Your task to perform on an android device: Clear all items from cart on newegg. Search for "jbl charge 4" on newegg, select the first entry, and add it to the cart. Image 0: 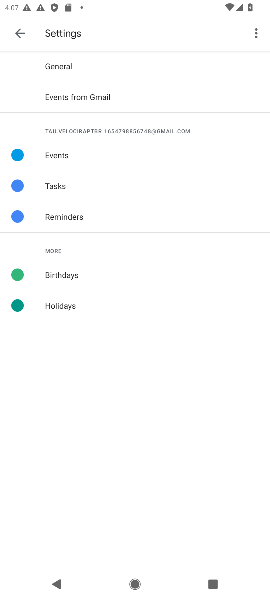
Step 0: press home button
Your task to perform on an android device: Clear all items from cart on newegg. Search for "jbl charge 4" on newegg, select the first entry, and add it to the cart. Image 1: 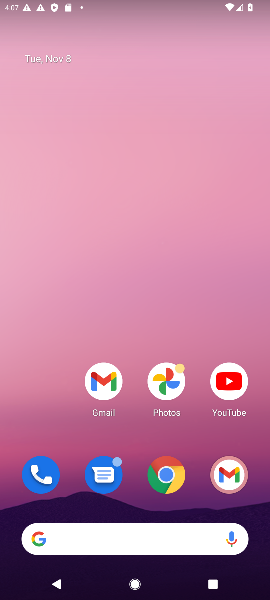
Step 1: drag from (120, 510) to (169, 55)
Your task to perform on an android device: Clear all items from cart on newegg. Search for "jbl charge 4" on newegg, select the first entry, and add it to the cart. Image 2: 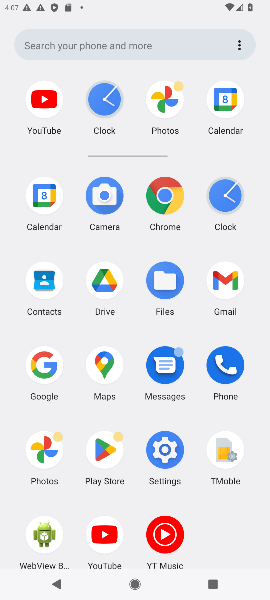
Step 2: click (37, 363)
Your task to perform on an android device: Clear all items from cart on newegg. Search for "jbl charge 4" on newegg, select the first entry, and add it to the cart. Image 3: 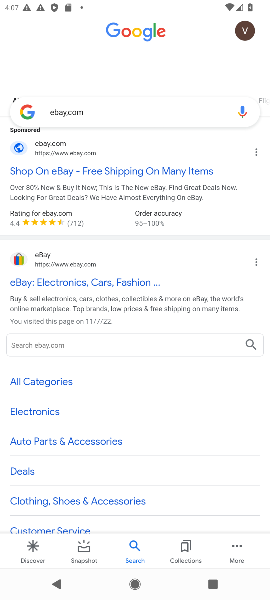
Step 3: click (128, 111)
Your task to perform on an android device: Clear all items from cart on newegg. Search for "jbl charge 4" on newegg, select the first entry, and add it to the cart. Image 4: 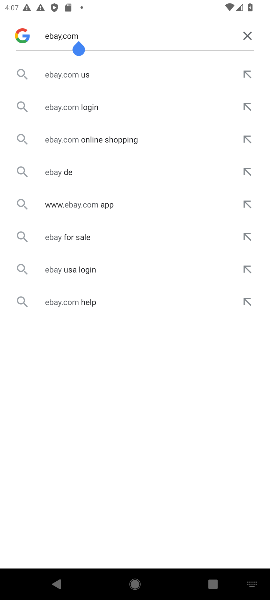
Step 4: click (241, 31)
Your task to perform on an android device: Clear all items from cart on newegg. Search for "jbl charge 4" on newegg, select the first entry, and add it to the cart. Image 5: 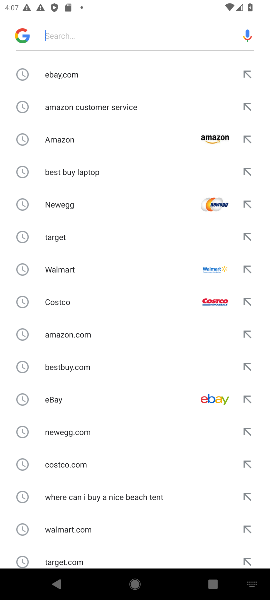
Step 5: click (131, 34)
Your task to perform on an android device: Clear all items from cart on newegg. Search for "jbl charge 4" on newegg, select the first entry, and add it to the cart. Image 6: 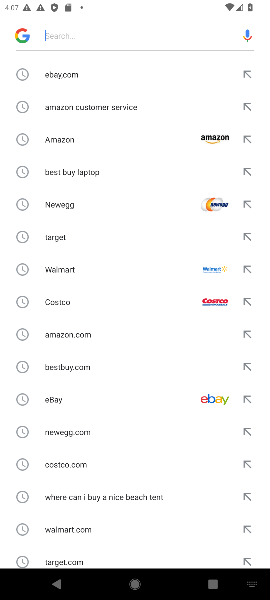
Step 6: type "newegg "
Your task to perform on an android device: Clear all items from cart on newegg. Search for "jbl charge 4" on newegg, select the first entry, and add it to the cart. Image 7: 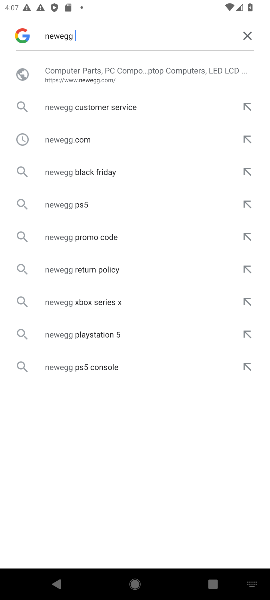
Step 7: click (82, 136)
Your task to perform on an android device: Clear all items from cart on newegg. Search for "jbl charge 4" on newegg, select the first entry, and add it to the cart. Image 8: 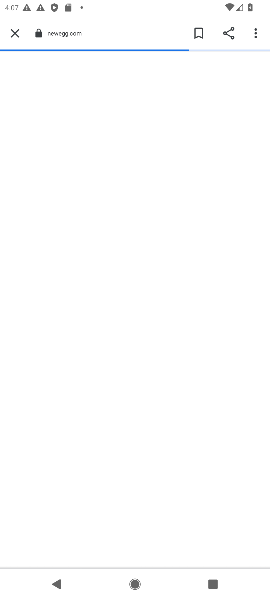
Step 8: click (82, 136)
Your task to perform on an android device: Clear all items from cart on newegg. Search for "jbl charge 4" on newegg, select the first entry, and add it to the cart. Image 9: 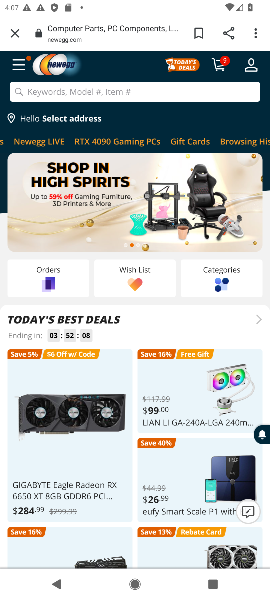
Step 9: click (167, 90)
Your task to perform on an android device: Clear all items from cart on newegg. Search for "jbl charge 4" on newegg, select the first entry, and add it to the cart. Image 10: 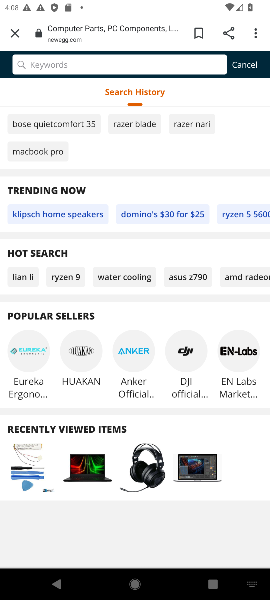
Step 10: click (66, 61)
Your task to perform on an android device: Clear all items from cart on newegg. Search for "jbl charge 4" on newegg, select the first entry, and add it to the cart. Image 11: 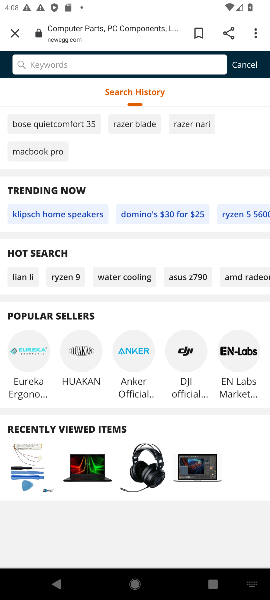
Step 11: type "jbl charge 4"  "
Your task to perform on an android device: Clear all items from cart on newegg. Search for "jbl charge 4" on newegg, select the first entry, and add it to the cart. Image 12: 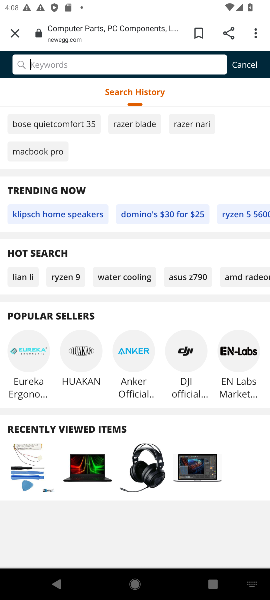
Step 12: click (126, 406)
Your task to perform on an android device: Clear all items from cart on newegg. Search for "jbl charge 4" on newegg, select the first entry, and add it to the cart. Image 13: 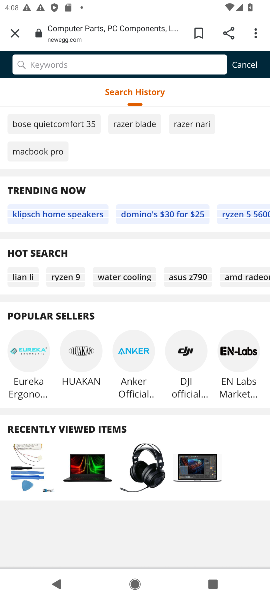
Step 13: click (115, 59)
Your task to perform on an android device: Clear all items from cart on newegg. Search for "jbl charge 4" on newegg, select the first entry, and add it to the cart. Image 14: 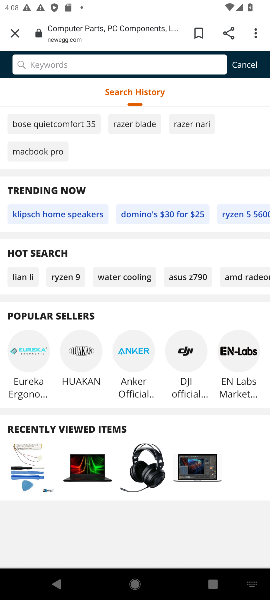
Step 14: type "jbl charge "
Your task to perform on an android device: Clear all items from cart on newegg. Search for "jbl charge 4" on newegg, select the first entry, and add it to the cart. Image 15: 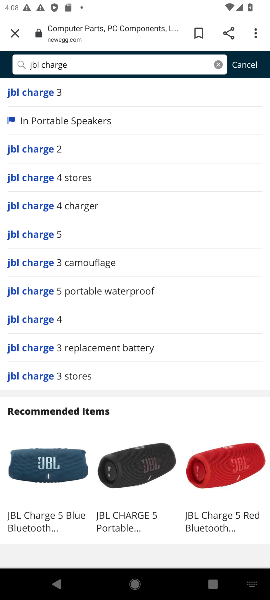
Step 15: click (53, 209)
Your task to perform on an android device: Clear all items from cart on newegg. Search for "jbl charge 4" on newegg, select the first entry, and add it to the cart. Image 16: 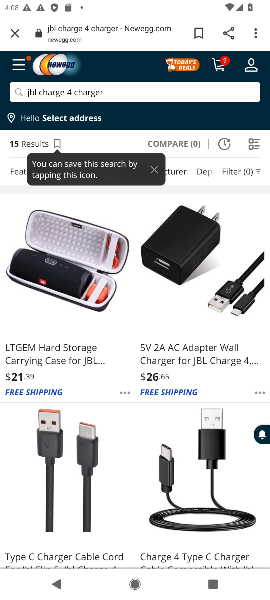
Step 16: drag from (96, 502) to (118, 304)
Your task to perform on an android device: Clear all items from cart on newegg. Search for "jbl charge 4" on newegg, select the first entry, and add it to the cart. Image 17: 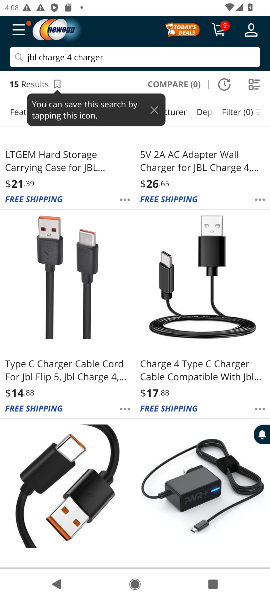
Step 17: click (76, 365)
Your task to perform on an android device: Clear all items from cart on newegg. Search for "jbl charge 4" on newegg, select the first entry, and add it to the cart. Image 18: 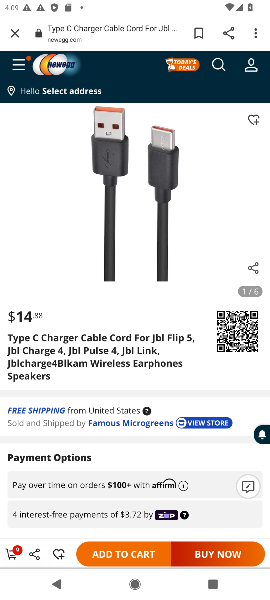
Step 18: click (119, 554)
Your task to perform on an android device: Clear all items from cart on newegg. Search for "jbl charge 4" on newegg, select the first entry, and add it to the cart. Image 19: 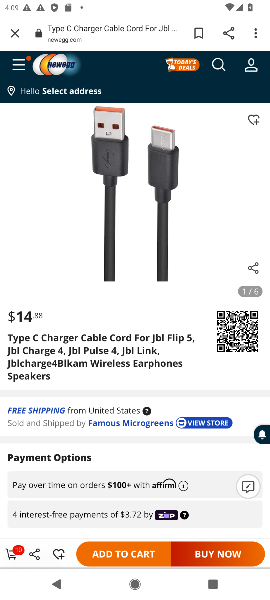
Step 19: task complete